Your task to perform on an android device: turn on wifi Image 0: 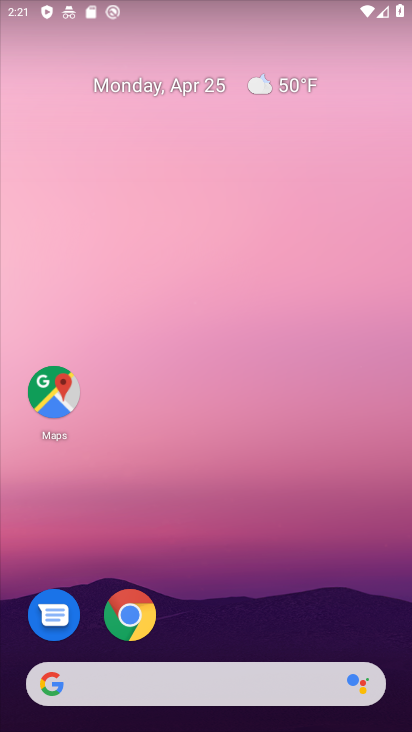
Step 0: drag from (207, 722) to (203, 191)
Your task to perform on an android device: turn on wifi Image 1: 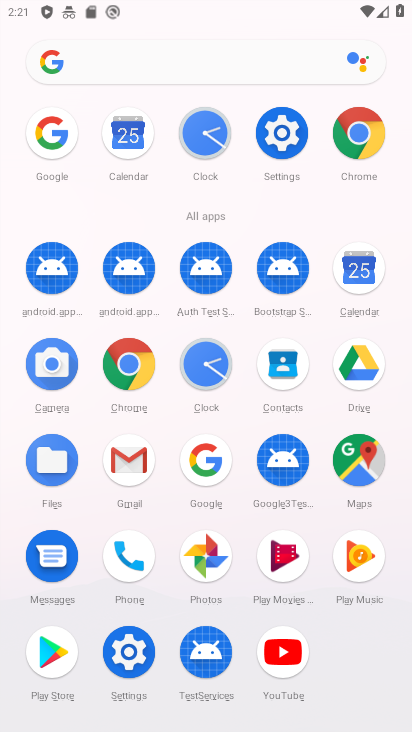
Step 1: click (288, 133)
Your task to perform on an android device: turn on wifi Image 2: 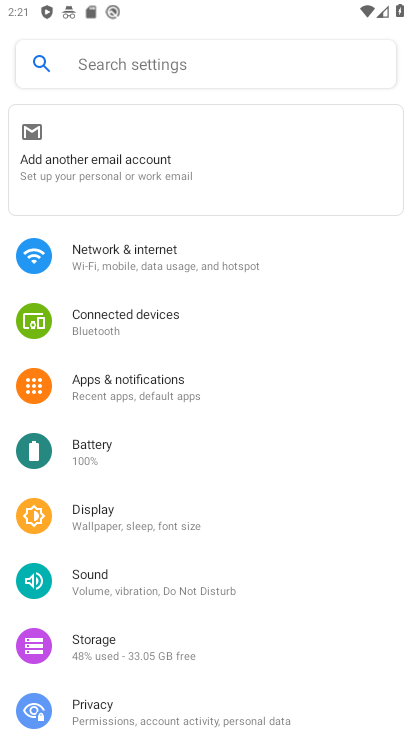
Step 2: click (136, 259)
Your task to perform on an android device: turn on wifi Image 3: 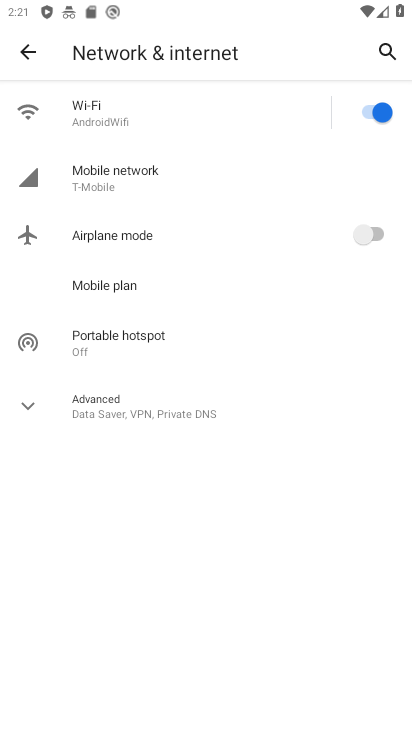
Step 3: task complete